Your task to perform on an android device: manage bookmarks in the chrome app Image 0: 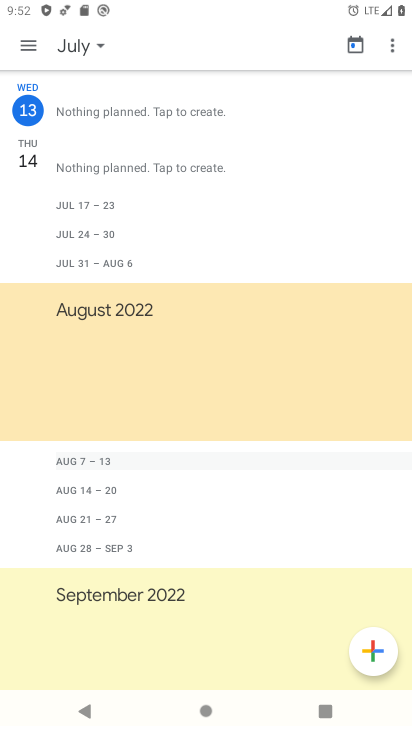
Step 0: press home button
Your task to perform on an android device: manage bookmarks in the chrome app Image 1: 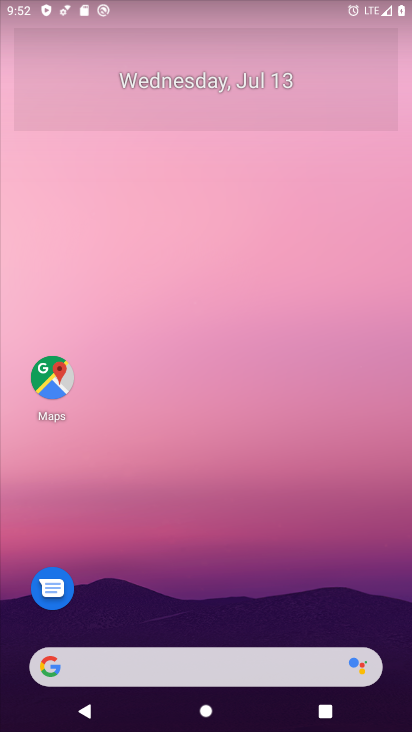
Step 1: drag from (160, 704) to (186, 235)
Your task to perform on an android device: manage bookmarks in the chrome app Image 2: 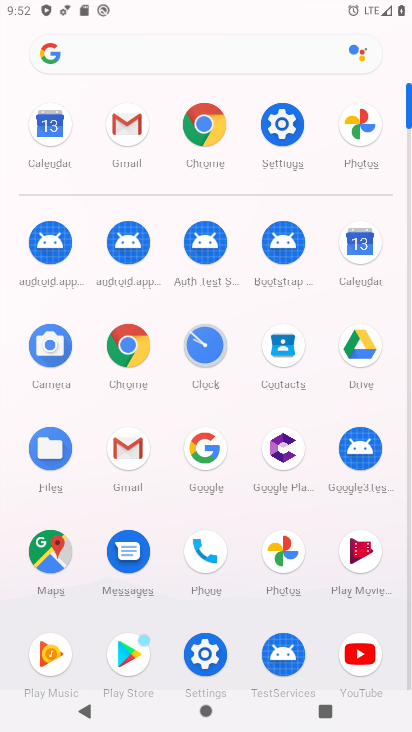
Step 2: click (222, 111)
Your task to perform on an android device: manage bookmarks in the chrome app Image 3: 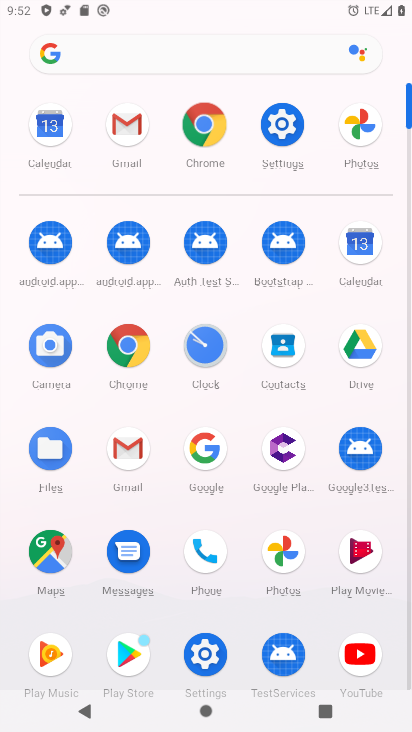
Step 3: click (222, 111)
Your task to perform on an android device: manage bookmarks in the chrome app Image 4: 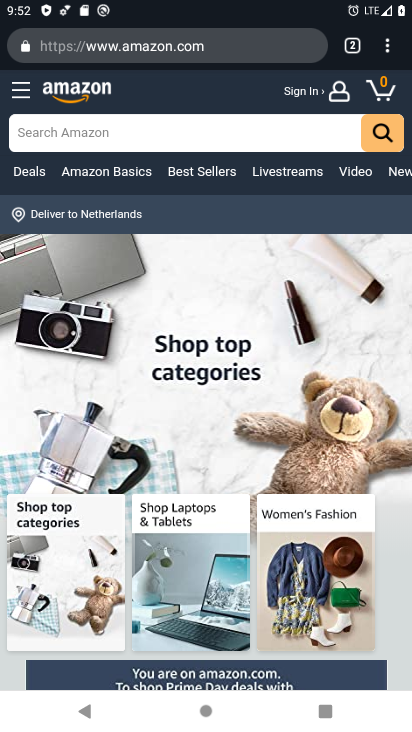
Step 4: click (385, 43)
Your task to perform on an android device: manage bookmarks in the chrome app Image 5: 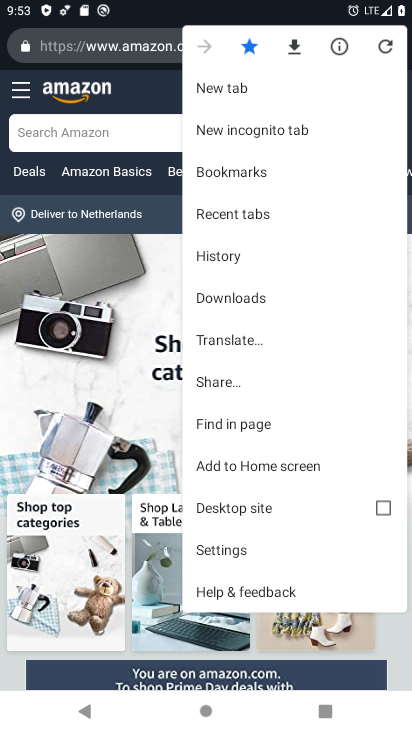
Step 5: click (261, 169)
Your task to perform on an android device: manage bookmarks in the chrome app Image 6: 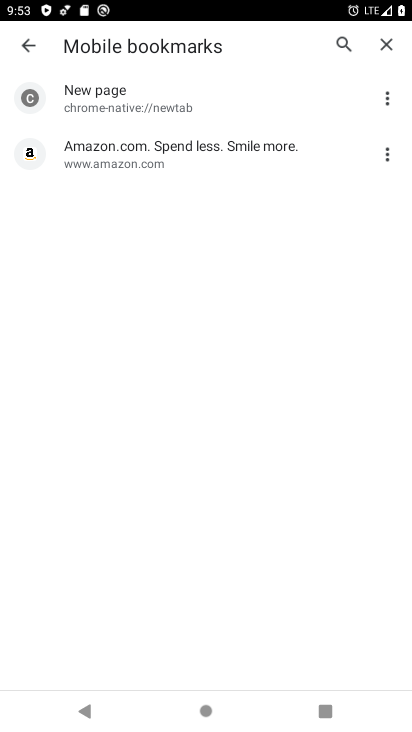
Step 6: click (387, 148)
Your task to perform on an android device: manage bookmarks in the chrome app Image 7: 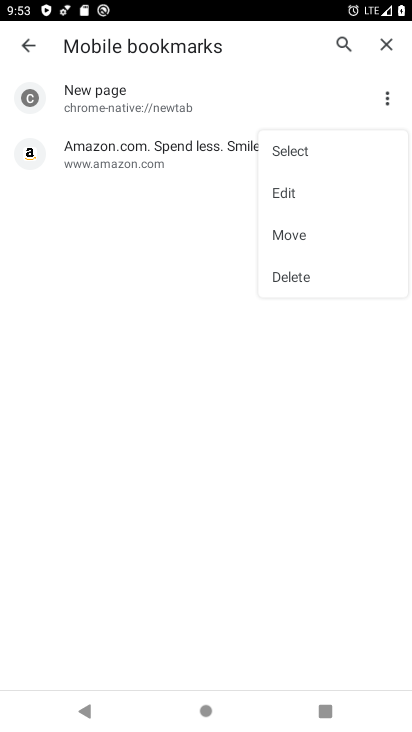
Step 7: click (309, 270)
Your task to perform on an android device: manage bookmarks in the chrome app Image 8: 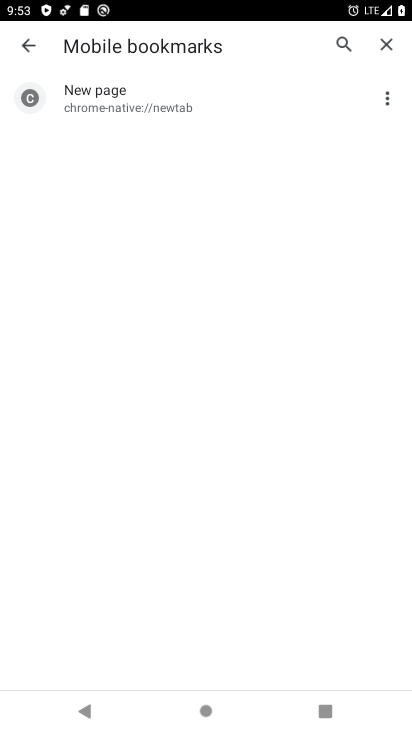
Step 8: task complete